Your task to perform on an android device: star an email in the gmail app Image 0: 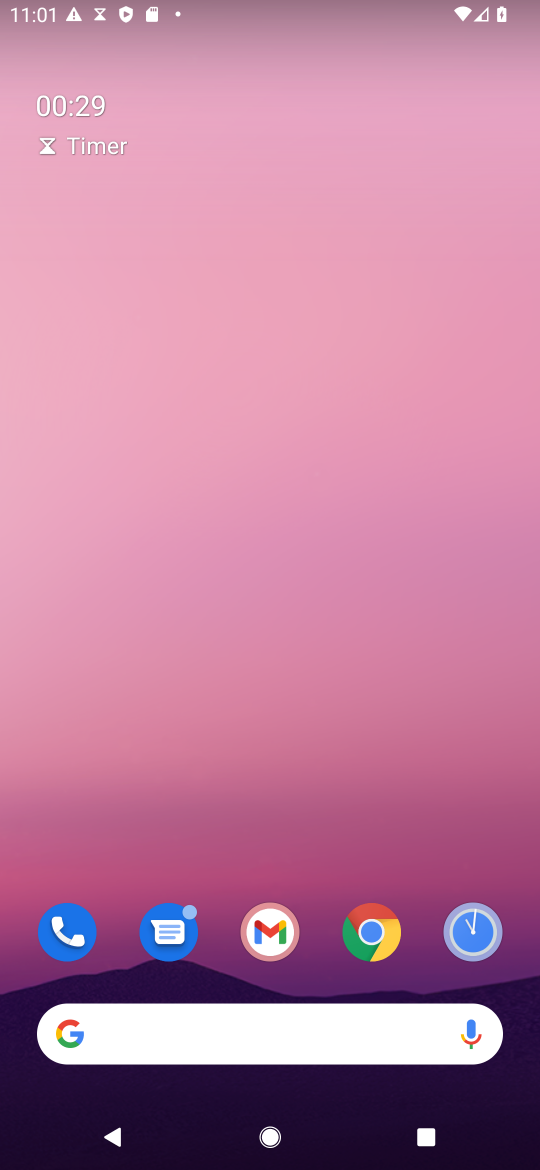
Step 0: click (279, 930)
Your task to perform on an android device: star an email in the gmail app Image 1: 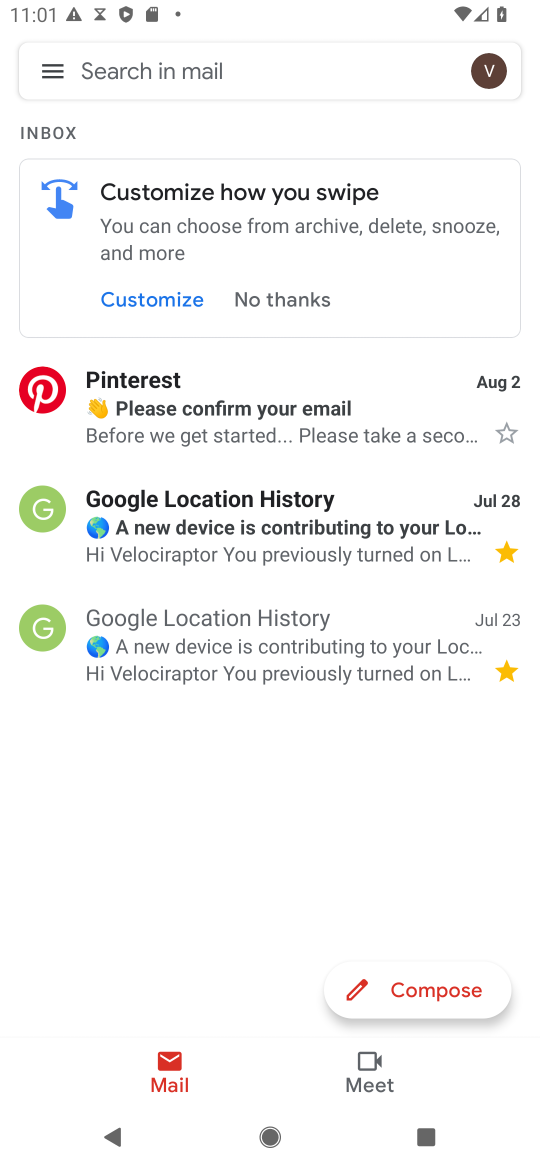
Step 1: click (501, 431)
Your task to perform on an android device: star an email in the gmail app Image 2: 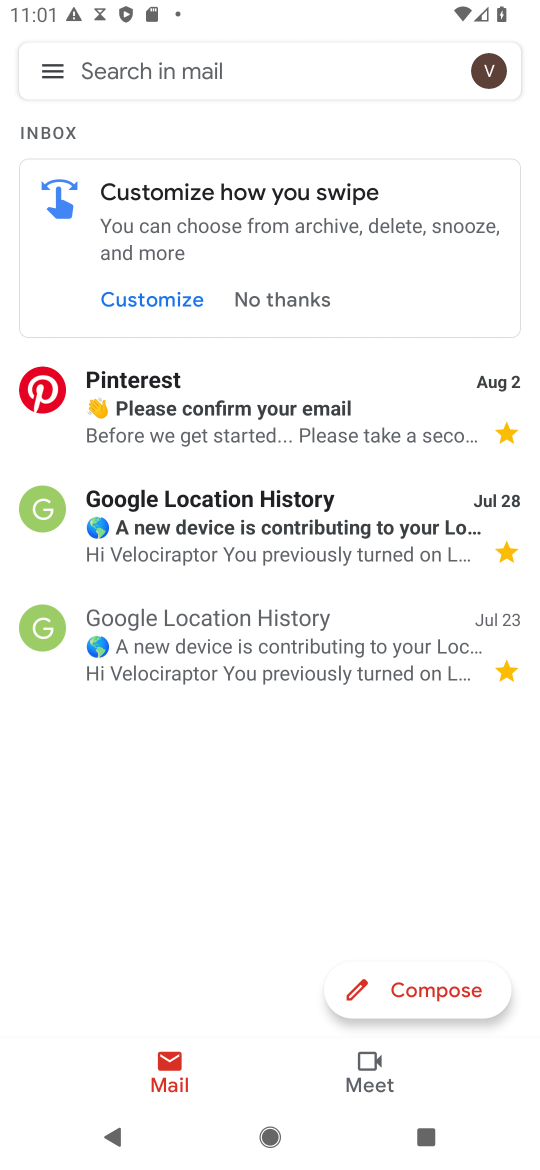
Step 2: task complete